Your task to perform on an android device: Open settings on Google Maps Image 0: 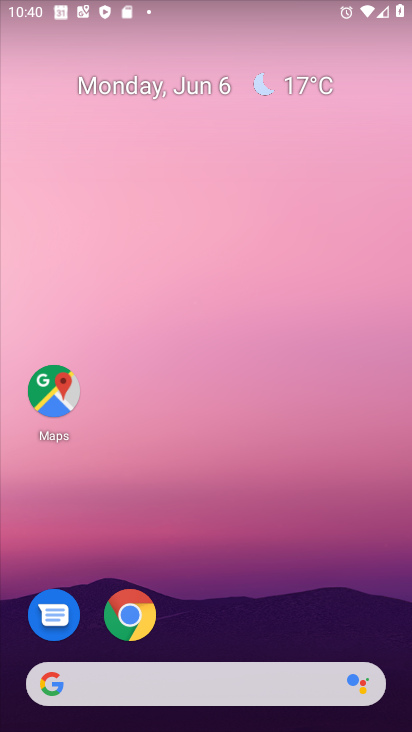
Step 0: press home button
Your task to perform on an android device: Open settings on Google Maps Image 1: 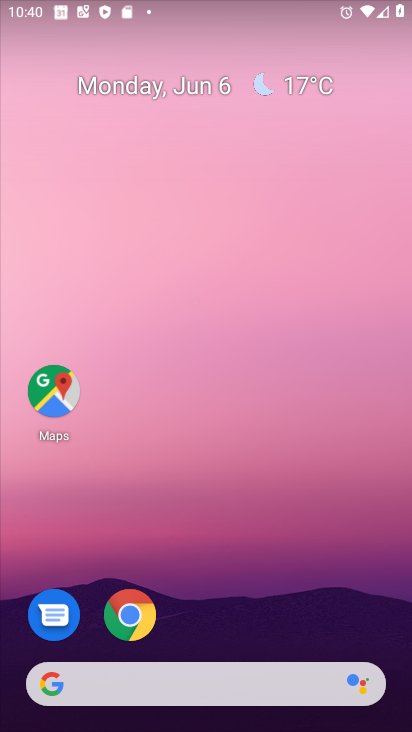
Step 1: click (56, 387)
Your task to perform on an android device: Open settings on Google Maps Image 2: 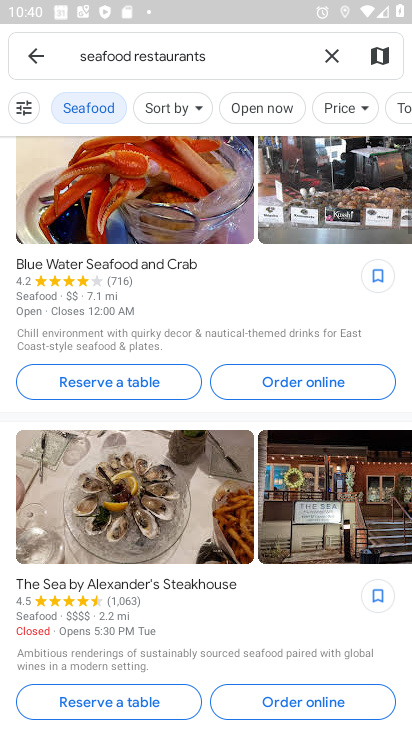
Step 2: click (36, 53)
Your task to perform on an android device: Open settings on Google Maps Image 3: 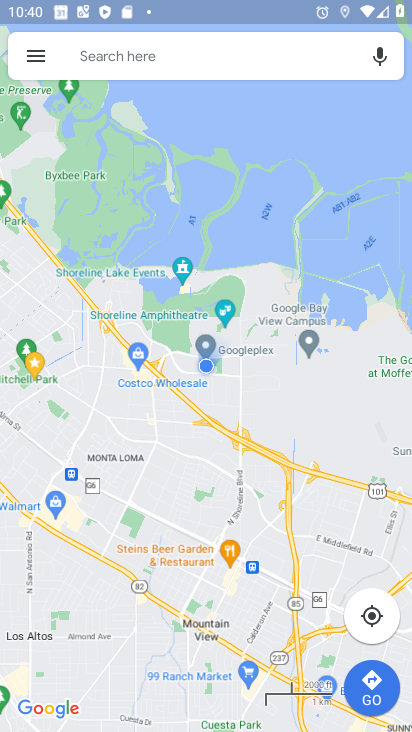
Step 3: click (39, 52)
Your task to perform on an android device: Open settings on Google Maps Image 4: 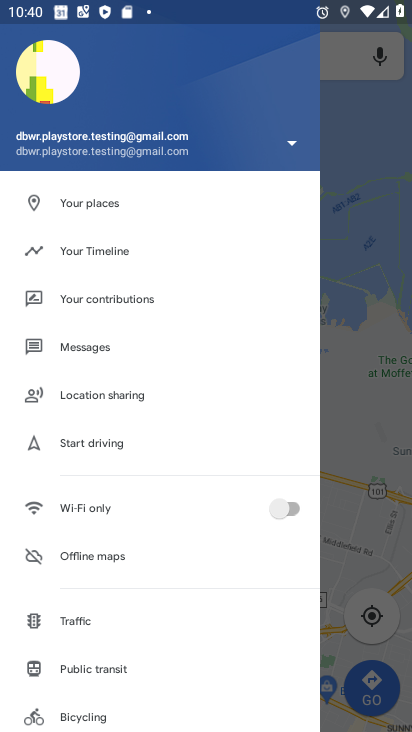
Step 4: drag from (157, 678) to (154, 198)
Your task to perform on an android device: Open settings on Google Maps Image 5: 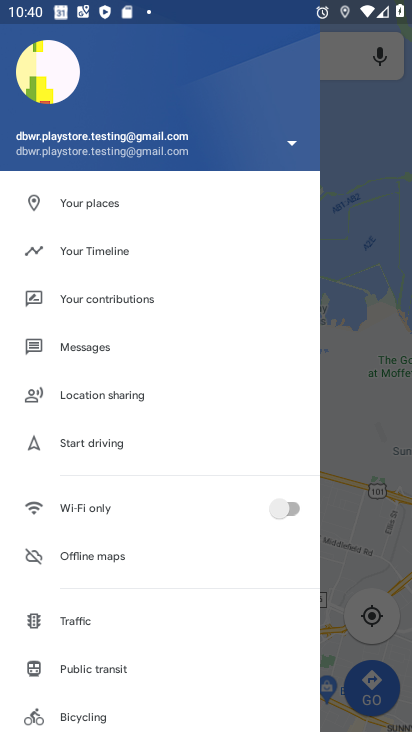
Step 5: drag from (156, 692) to (162, 169)
Your task to perform on an android device: Open settings on Google Maps Image 6: 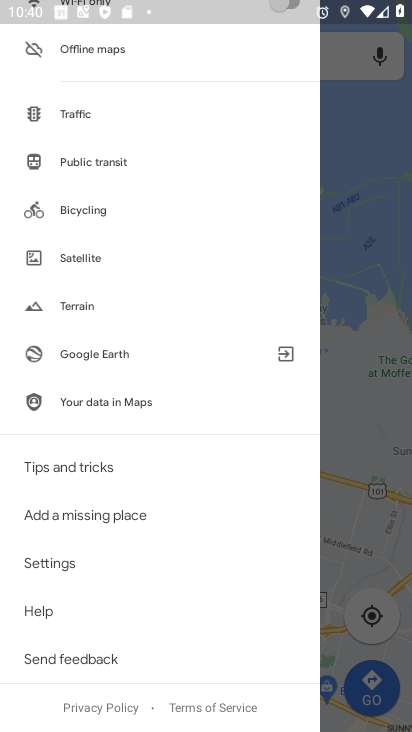
Step 6: click (134, 679)
Your task to perform on an android device: Open settings on Google Maps Image 7: 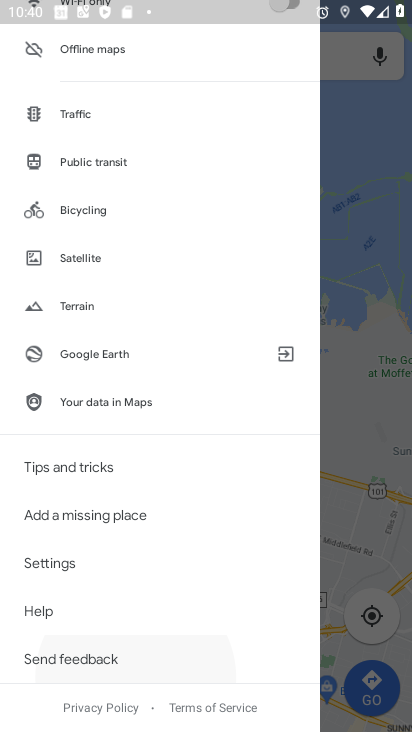
Step 7: drag from (141, 558) to (150, 318)
Your task to perform on an android device: Open settings on Google Maps Image 8: 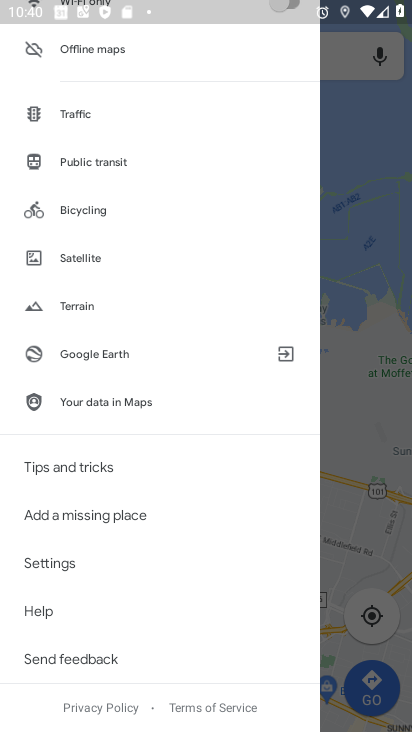
Step 8: click (89, 559)
Your task to perform on an android device: Open settings on Google Maps Image 9: 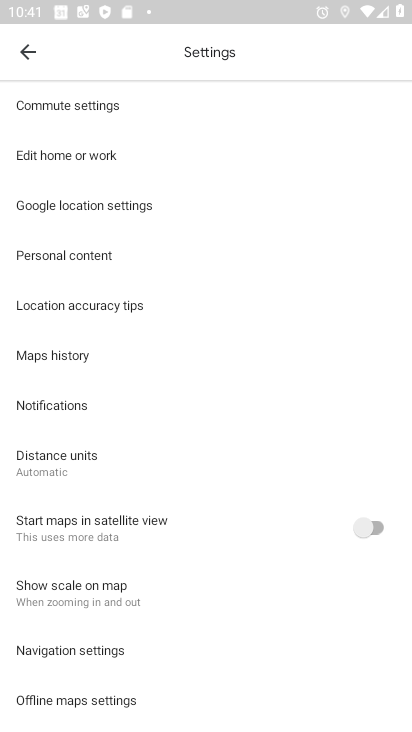
Step 9: task complete